Your task to perform on an android device: Go to location settings Image 0: 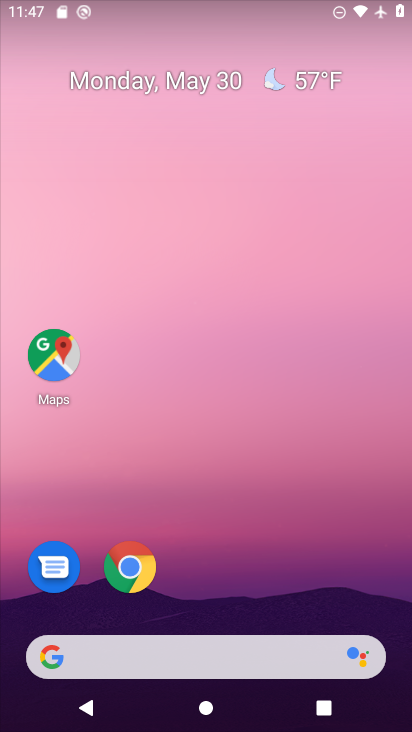
Step 0: drag from (215, 588) to (178, 153)
Your task to perform on an android device: Go to location settings Image 1: 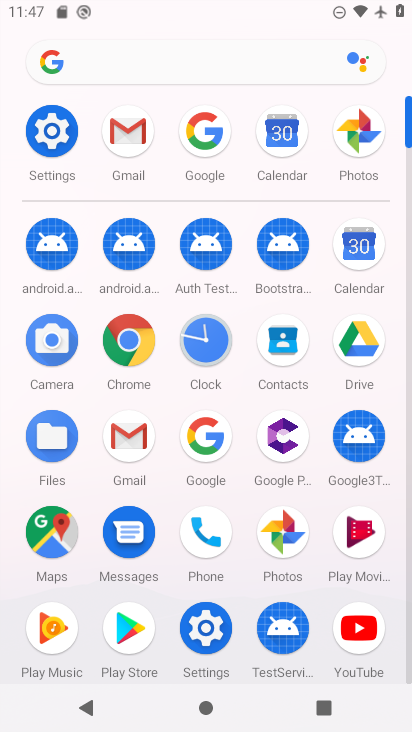
Step 1: click (60, 125)
Your task to perform on an android device: Go to location settings Image 2: 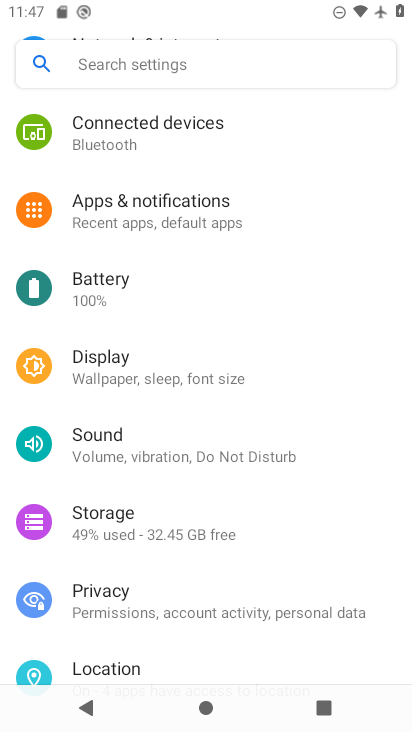
Step 2: click (148, 665)
Your task to perform on an android device: Go to location settings Image 3: 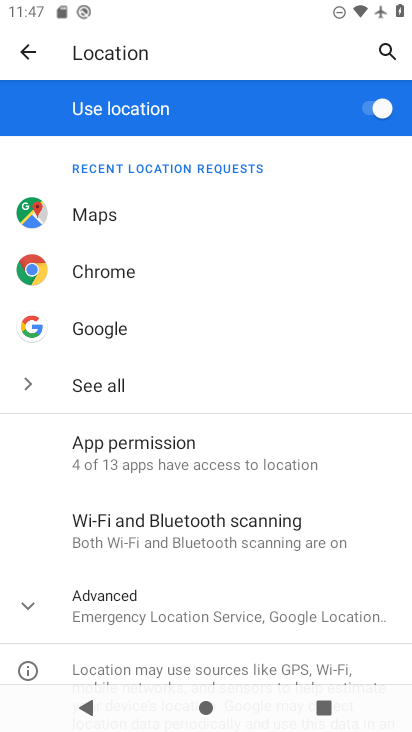
Step 3: task complete